Your task to perform on an android device: toggle show notifications on the lock screen Image 0: 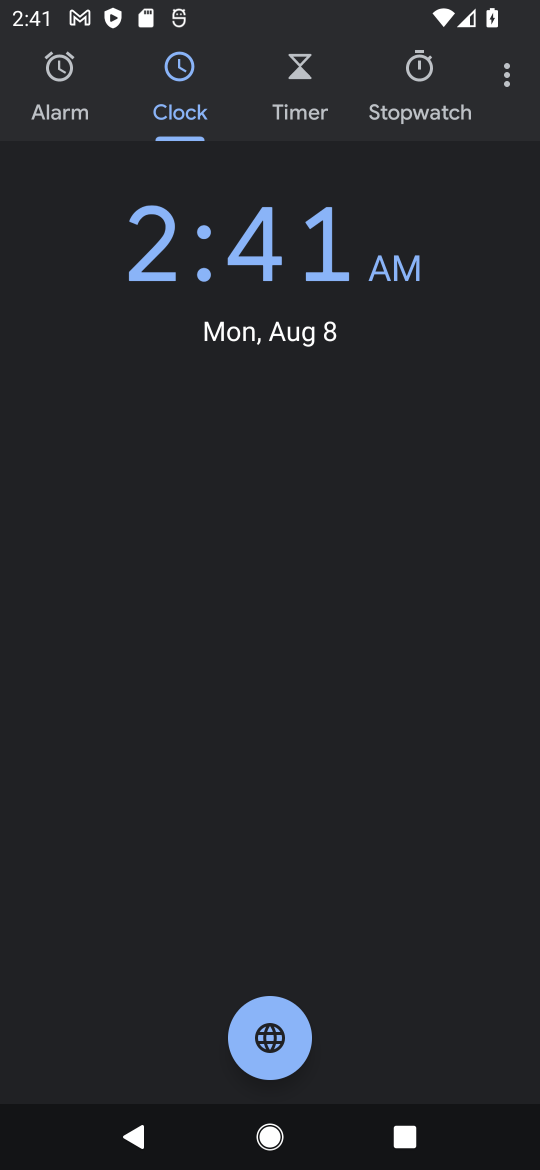
Step 0: press home button
Your task to perform on an android device: toggle show notifications on the lock screen Image 1: 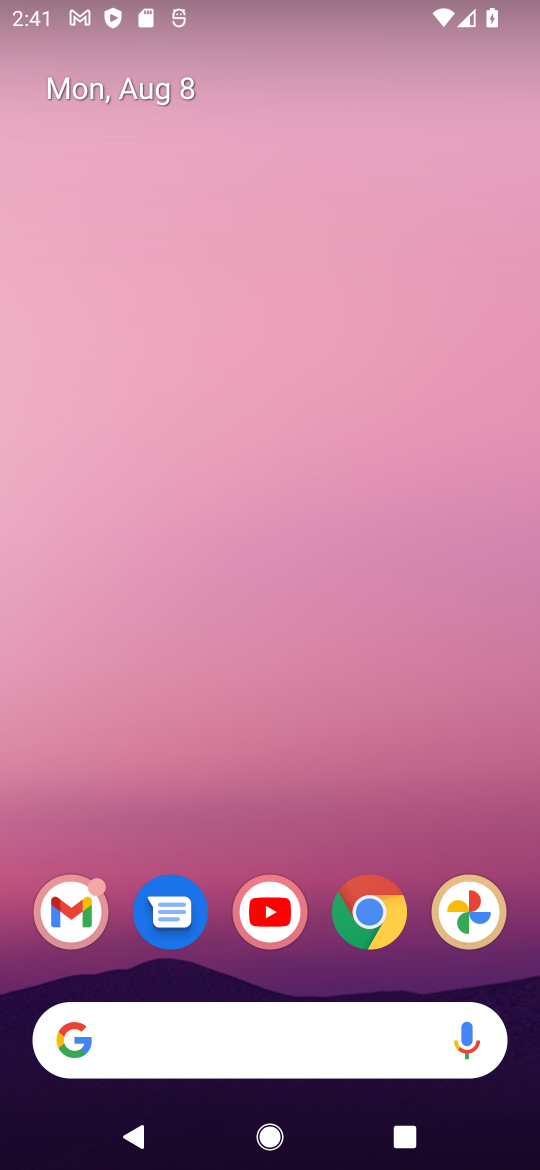
Step 1: drag from (182, 730) to (467, 115)
Your task to perform on an android device: toggle show notifications on the lock screen Image 2: 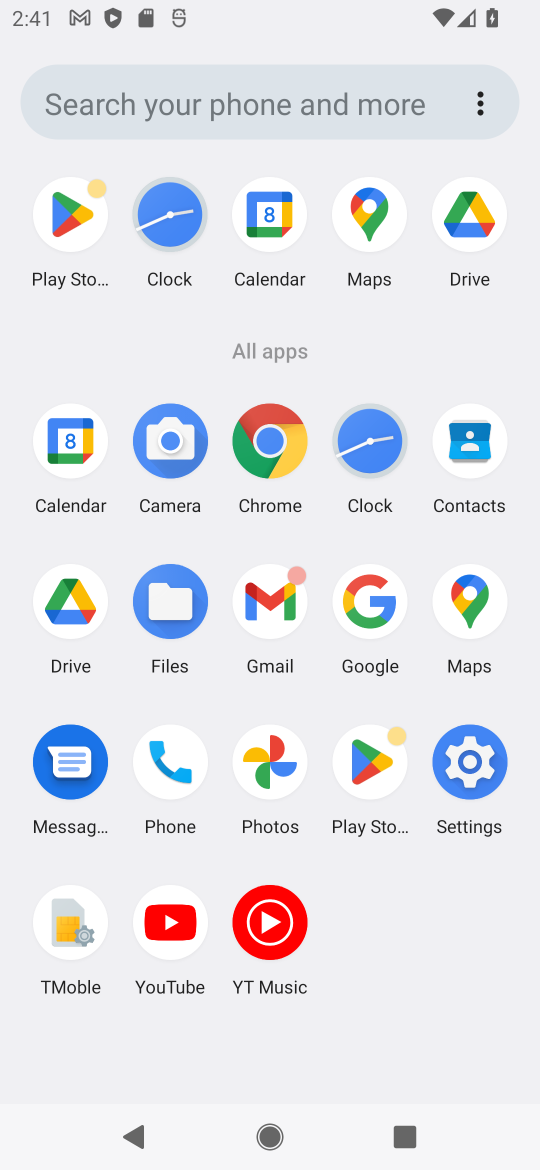
Step 2: click (457, 789)
Your task to perform on an android device: toggle show notifications on the lock screen Image 3: 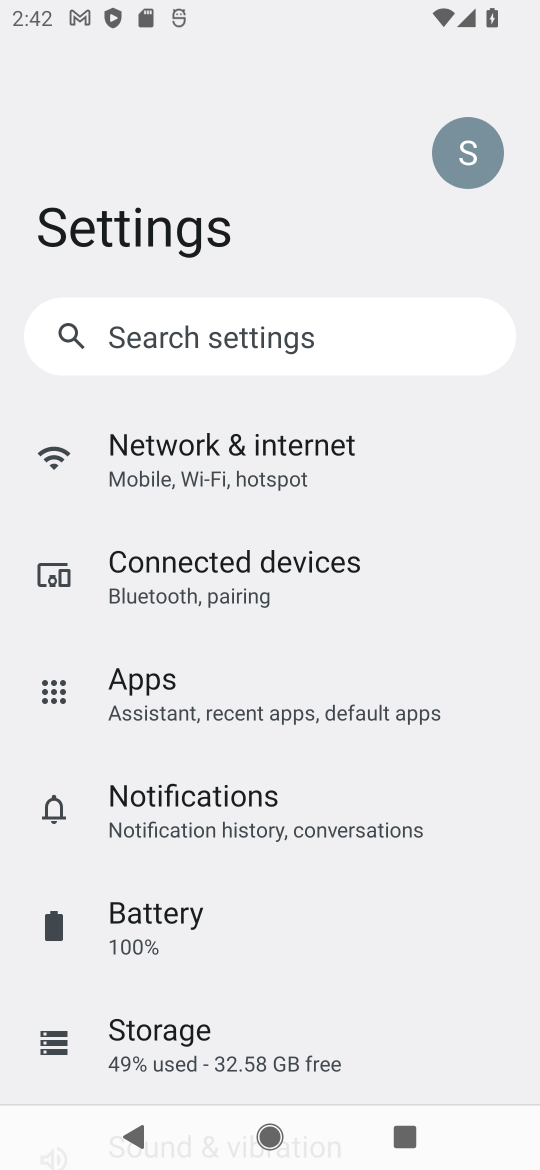
Step 3: click (243, 784)
Your task to perform on an android device: toggle show notifications on the lock screen Image 4: 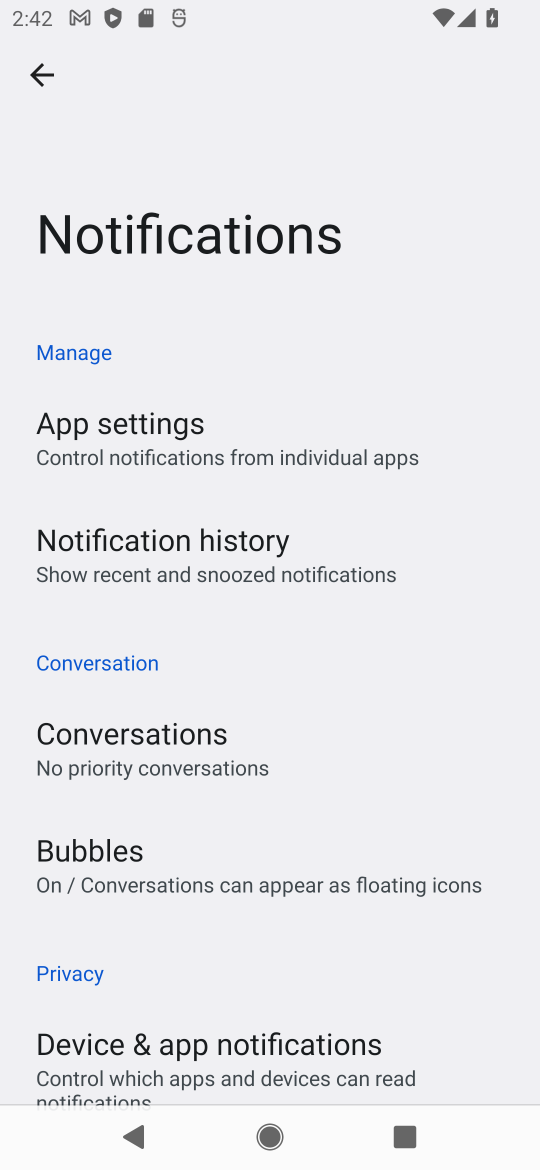
Step 4: click (161, 1053)
Your task to perform on an android device: toggle show notifications on the lock screen Image 5: 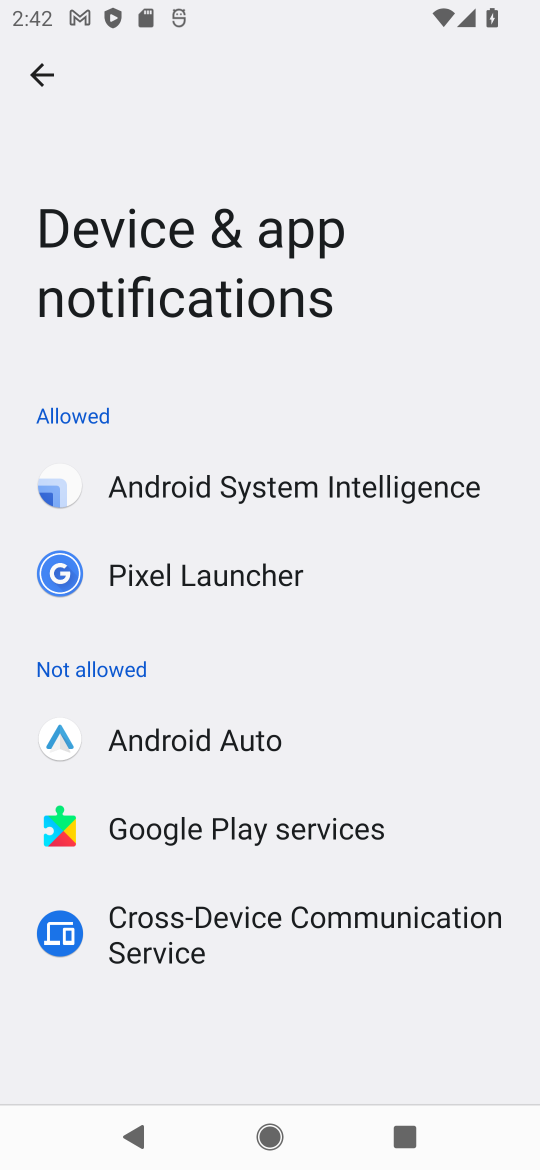
Step 5: press back button
Your task to perform on an android device: toggle show notifications on the lock screen Image 6: 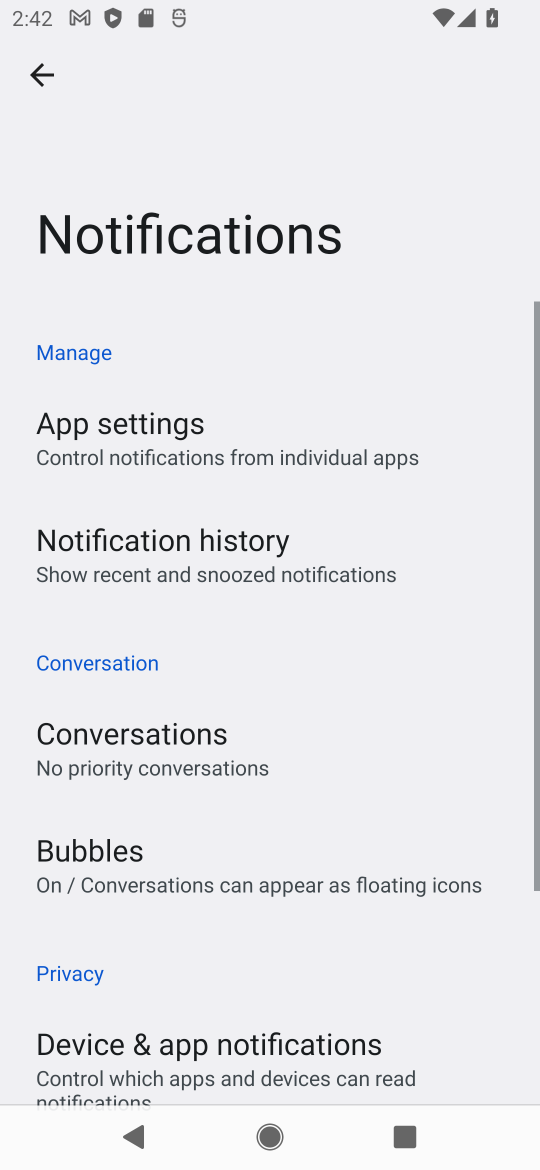
Step 6: drag from (13, 975) to (317, 277)
Your task to perform on an android device: toggle show notifications on the lock screen Image 7: 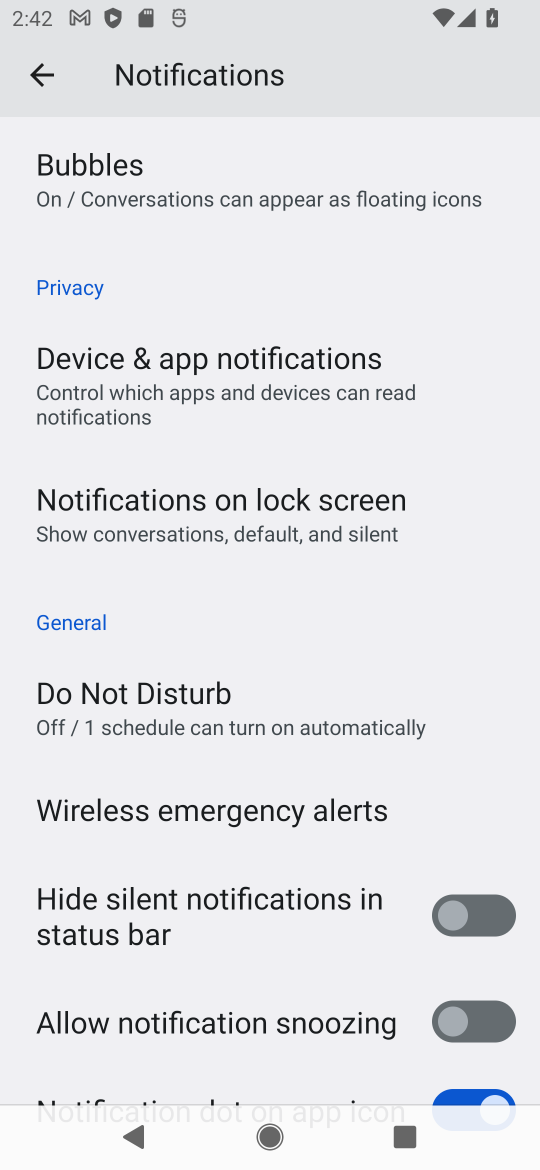
Step 7: click (167, 542)
Your task to perform on an android device: toggle show notifications on the lock screen Image 8: 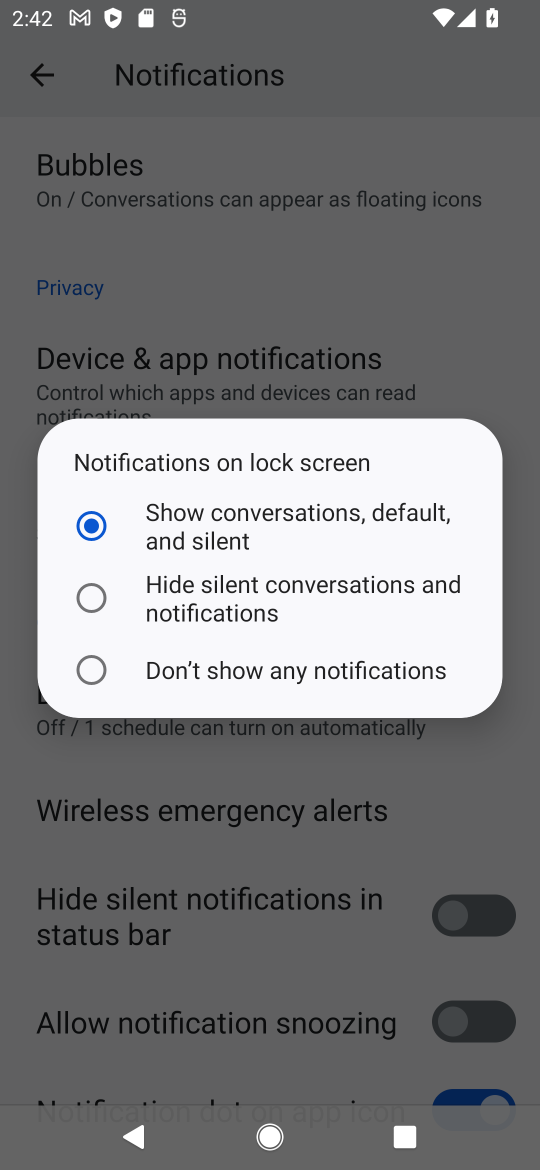
Step 8: click (178, 661)
Your task to perform on an android device: toggle show notifications on the lock screen Image 9: 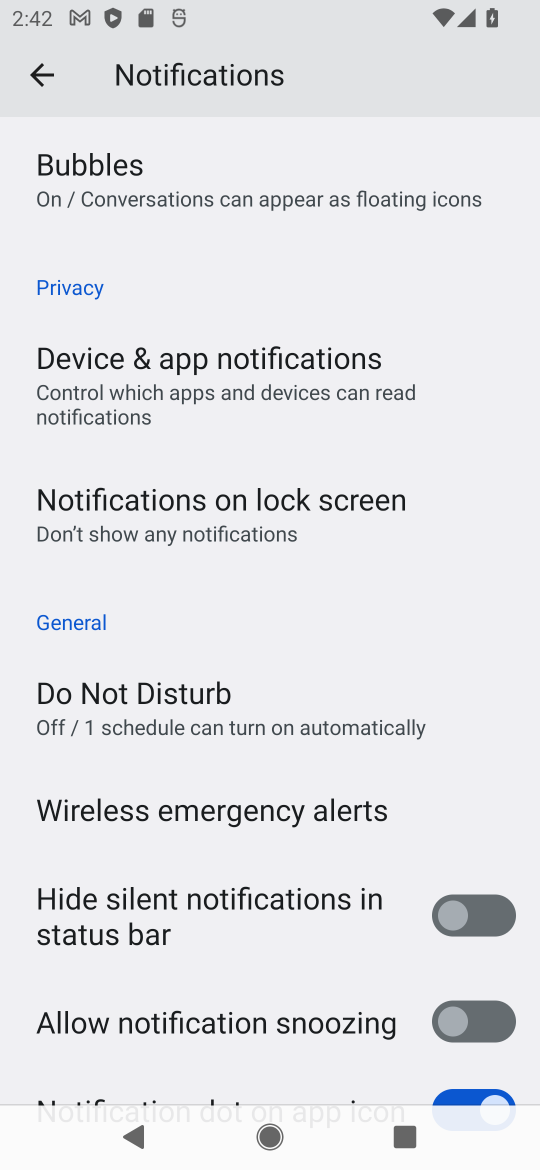
Step 9: task complete